Your task to perform on an android device: Open internet settings Image 0: 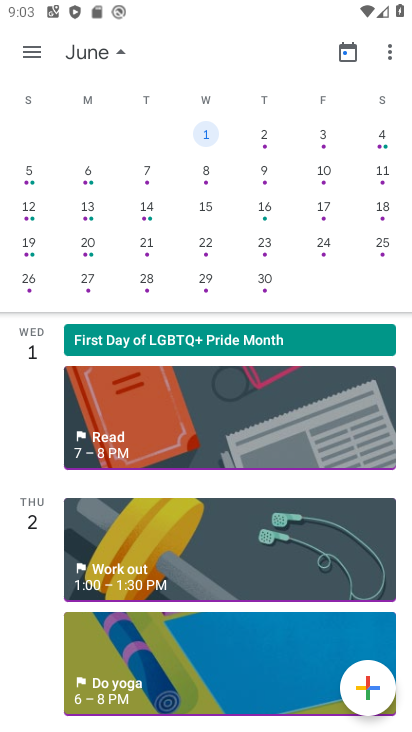
Step 0: press home button
Your task to perform on an android device: Open internet settings Image 1: 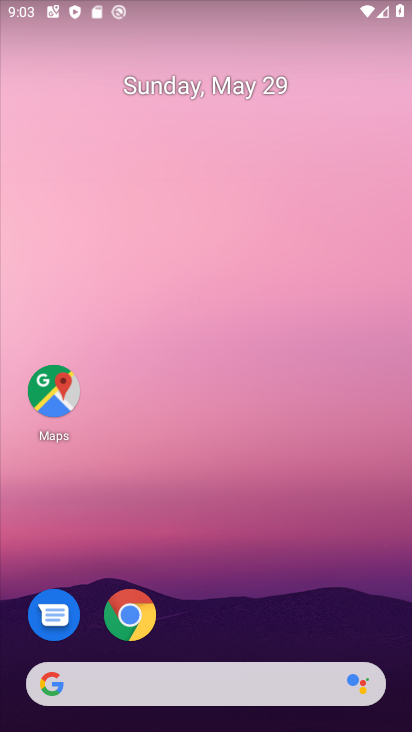
Step 1: drag from (223, 630) to (215, 7)
Your task to perform on an android device: Open internet settings Image 2: 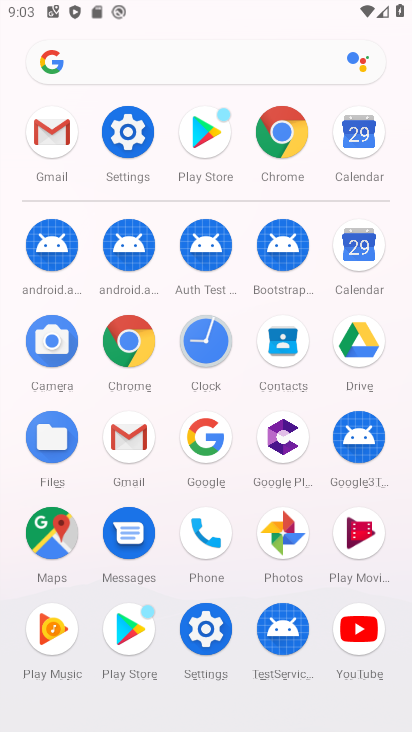
Step 2: click (132, 138)
Your task to perform on an android device: Open internet settings Image 3: 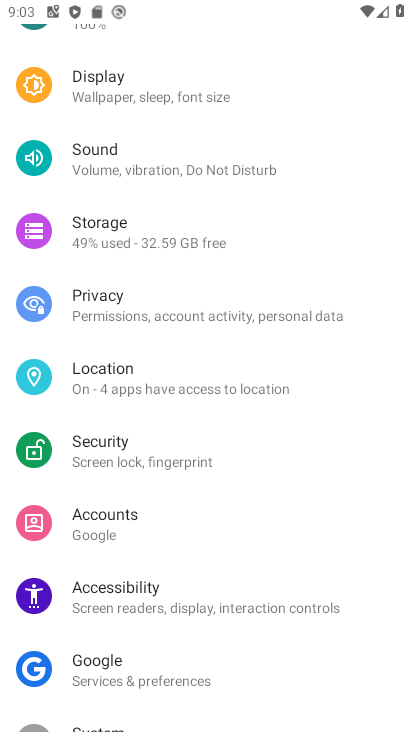
Step 3: drag from (163, 140) to (108, 522)
Your task to perform on an android device: Open internet settings Image 4: 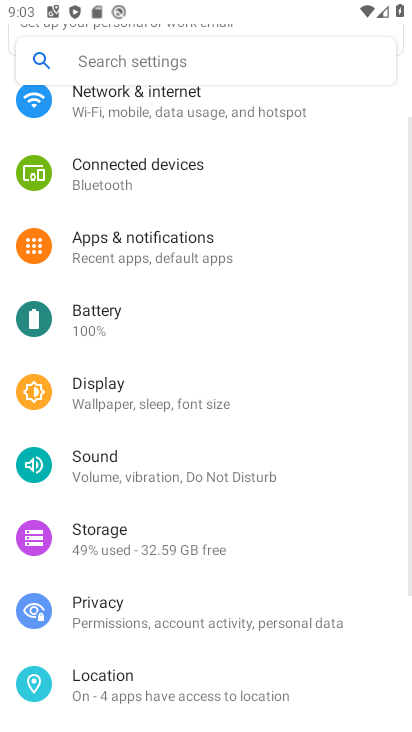
Step 4: drag from (91, 282) to (109, 558)
Your task to perform on an android device: Open internet settings Image 5: 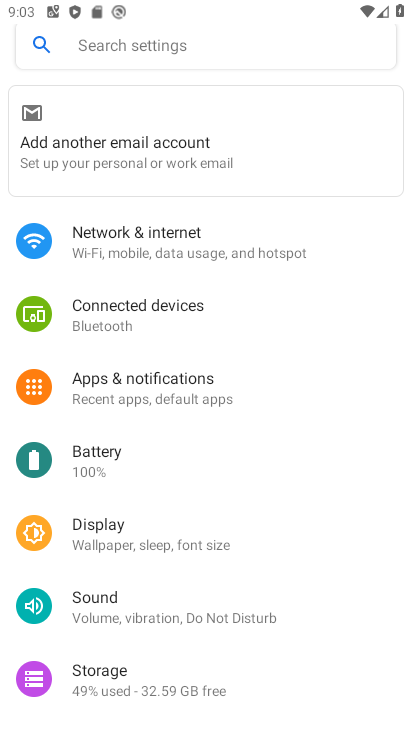
Step 5: click (146, 249)
Your task to perform on an android device: Open internet settings Image 6: 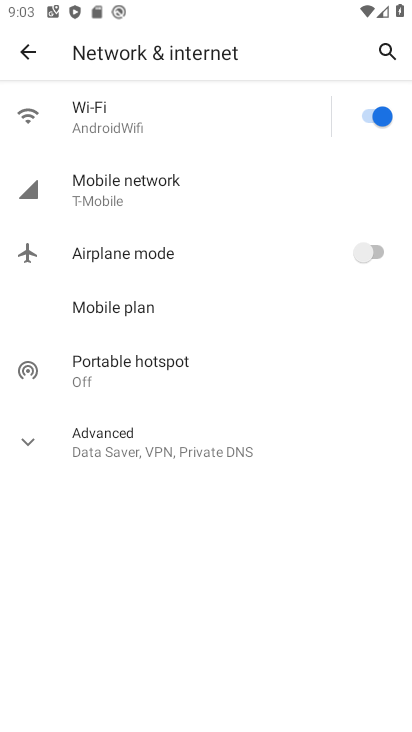
Step 6: click (133, 197)
Your task to perform on an android device: Open internet settings Image 7: 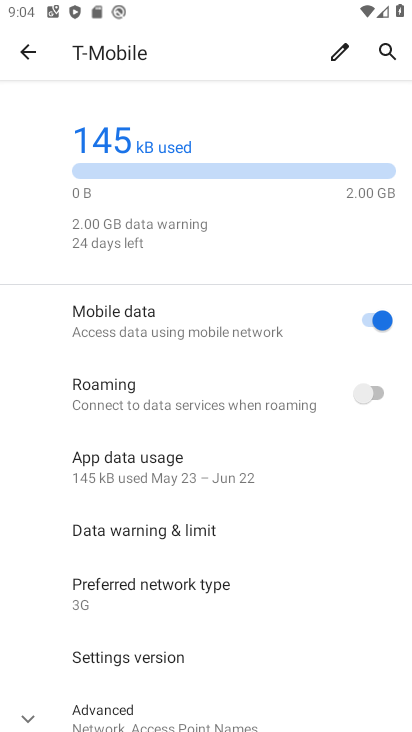
Step 7: task complete